Your task to perform on an android device: Go to Yahoo.com Image 0: 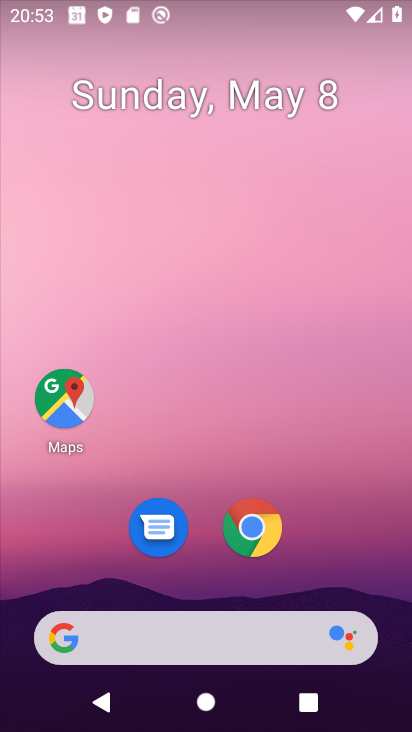
Step 0: click (253, 527)
Your task to perform on an android device: Go to Yahoo.com Image 1: 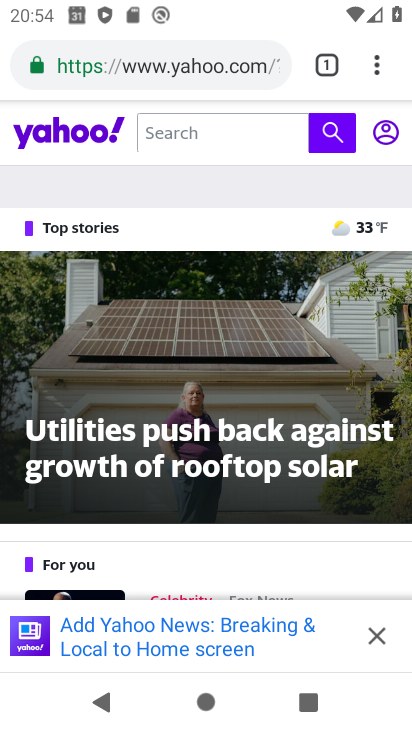
Step 1: task complete